Your task to perform on an android device: Search for dell xps on walmart, select the first entry, add it to the cart, then select checkout. Image 0: 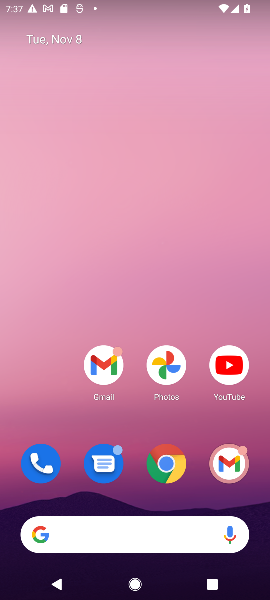
Step 0: click (173, 450)
Your task to perform on an android device: Search for dell xps on walmart, select the first entry, add it to the cart, then select checkout. Image 1: 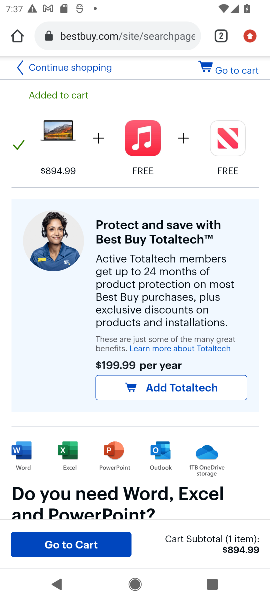
Step 1: click (105, 34)
Your task to perform on an android device: Search for dell xps on walmart, select the first entry, add it to the cart, then select checkout. Image 2: 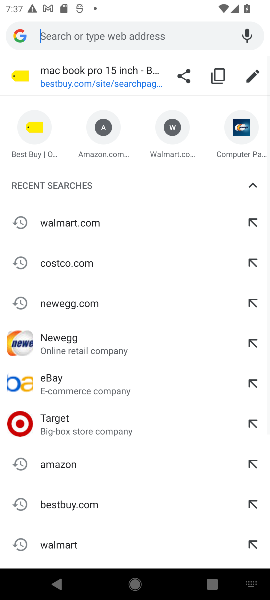
Step 2: click (34, 223)
Your task to perform on an android device: Search for dell xps on walmart, select the first entry, add it to the cart, then select checkout. Image 3: 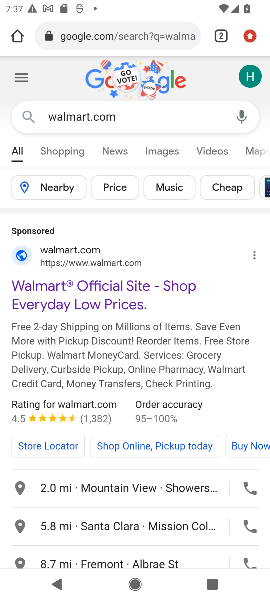
Step 3: click (115, 304)
Your task to perform on an android device: Search for dell xps on walmart, select the first entry, add it to the cart, then select checkout. Image 4: 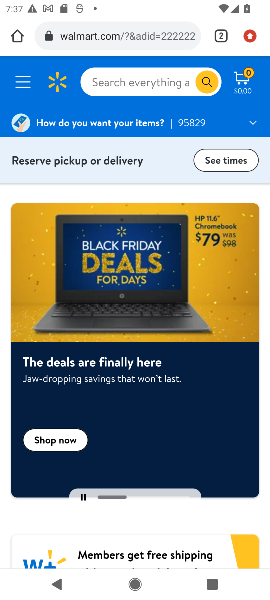
Step 4: click (151, 81)
Your task to perform on an android device: Search for dell xps on walmart, select the first entry, add it to the cart, then select checkout. Image 5: 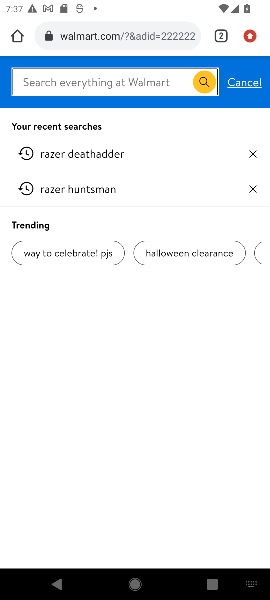
Step 5: type "dell xps"
Your task to perform on an android device: Search for dell xps on walmart, select the first entry, add it to the cart, then select checkout. Image 6: 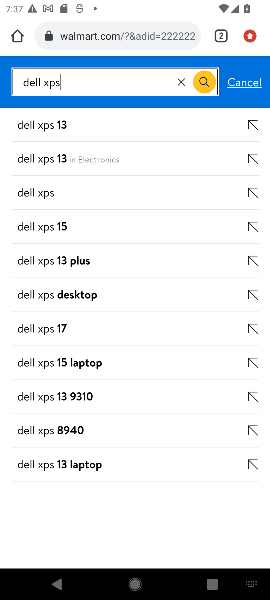
Step 6: click (202, 87)
Your task to perform on an android device: Search for dell xps on walmart, select the first entry, add it to the cart, then select checkout. Image 7: 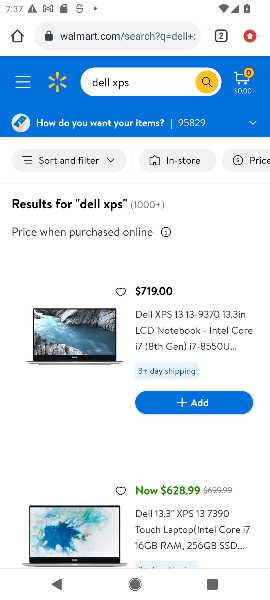
Step 7: click (224, 396)
Your task to perform on an android device: Search for dell xps on walmart, select the first entry, add it to the cart, then select checkout. Image 8: 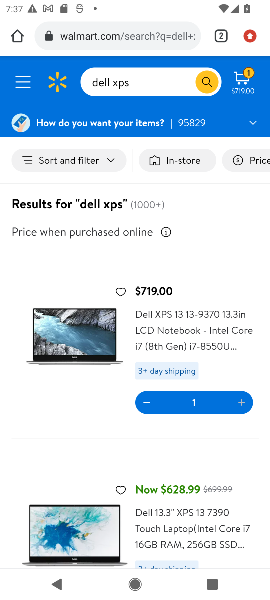
Step 8: click (147, 287)
Your task to perform on an android device: Search for dell xps on walmart, select the first entry, add it to the cart, then select checkout. Image 9: 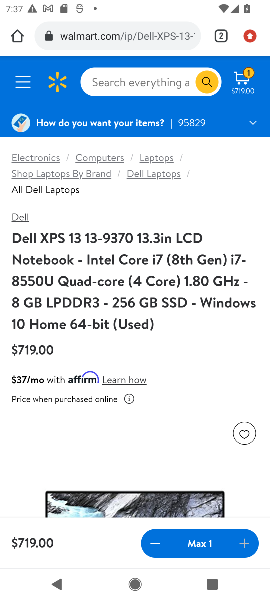
Step 9: drag from (171, 419) to (172, 171)
Your task to perform on an android device: Search for dell xps on walmart, select the first entry, add it to the cart, then select checkout. Image 10: 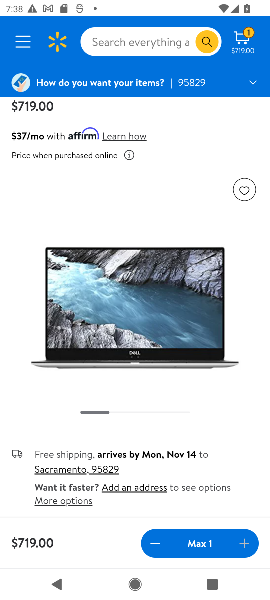
Step 10: drag from (139, 432) to (155, 173)
Your task to perform on an android device: Search for dell xps on walmart, select the first entry, add it to the cart, then select checkout. Image 11: 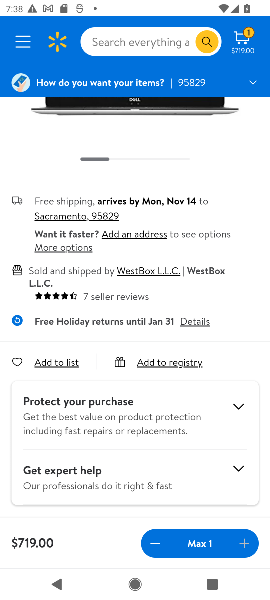
Step 11: click (249, 28)
Your task to perform on an android device: Search for dell xps on walmart, select the first entry, add it to the cart, then select checkout. Image 12: 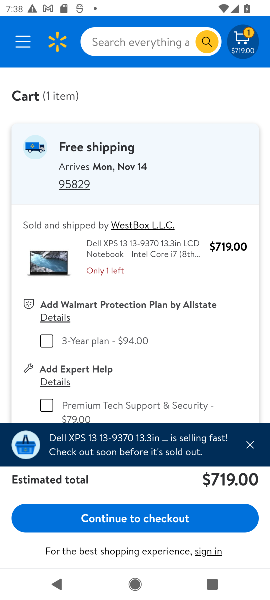
Step 12: click (113, 519)
Your task to perform on an android device: Search for dell xps on walmart, select the first entry, add it to the cart, then select checkout. Image 13: 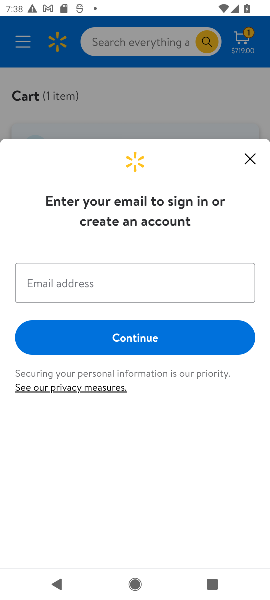
Step 13: task complete